Your task to perform on an android device: Clear all items from cart on amazon. Image 0: 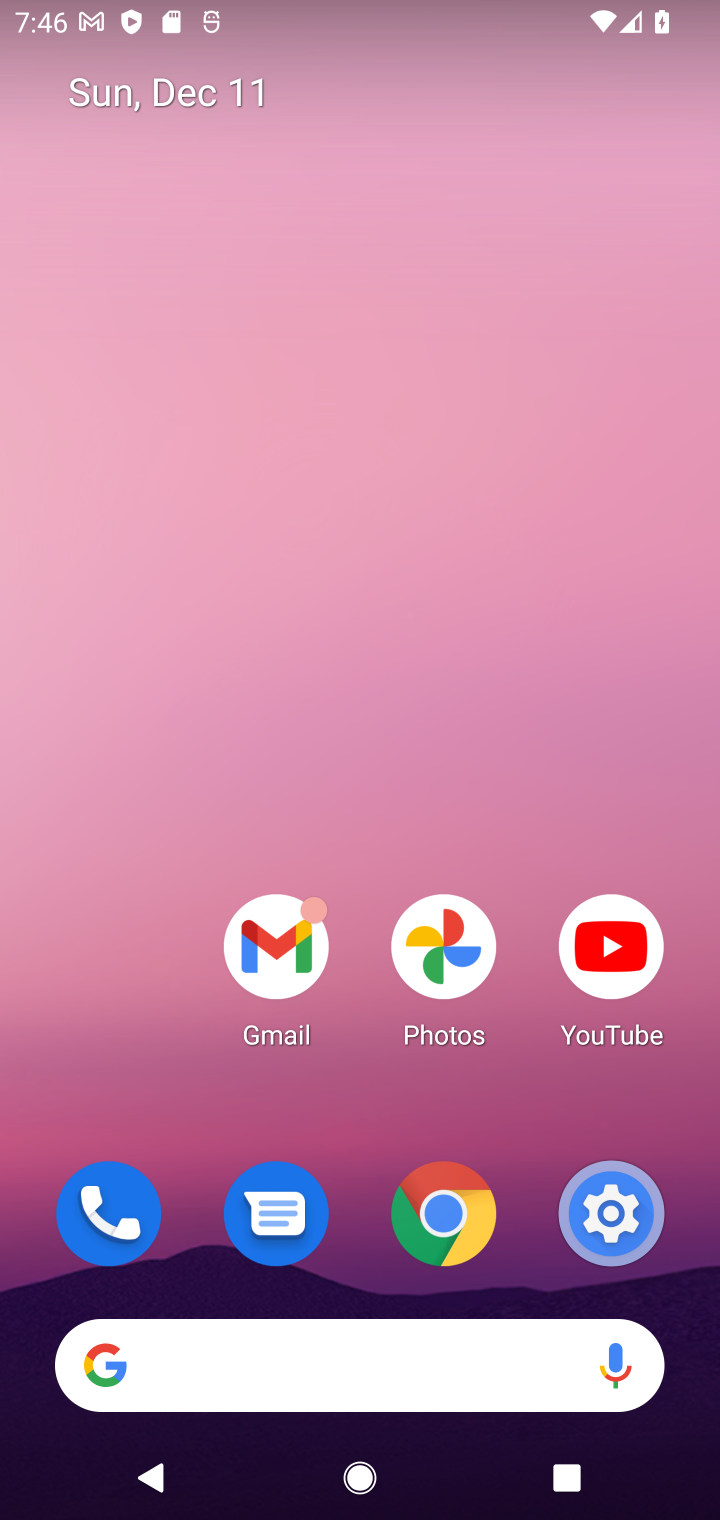
Step 0: click (457, 1365)
Your task to perform on an android device: Clear all items from cart on amazon. Image 1: 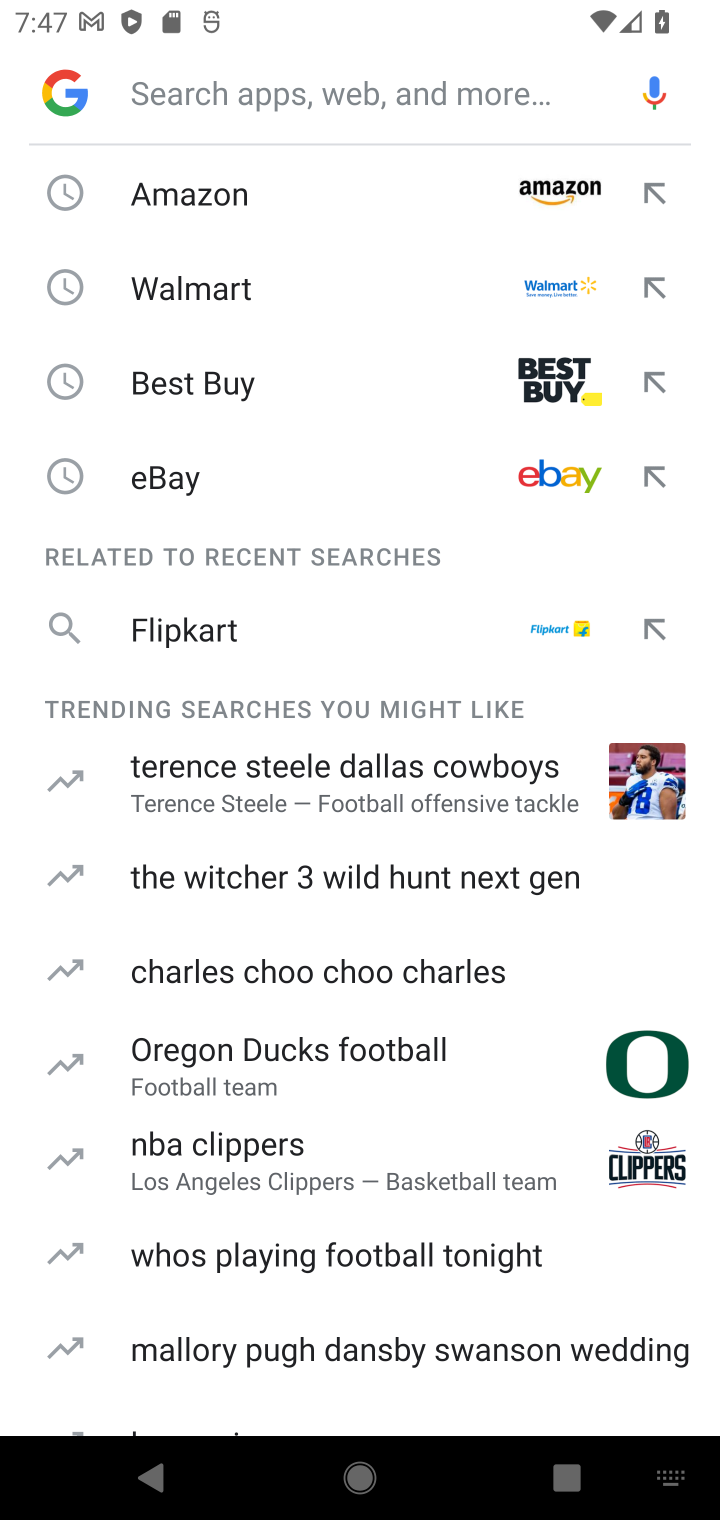
Step 1: click (243, 189)
Your task to perform on an android device: Clear all items from cart on amazon. Image 2: 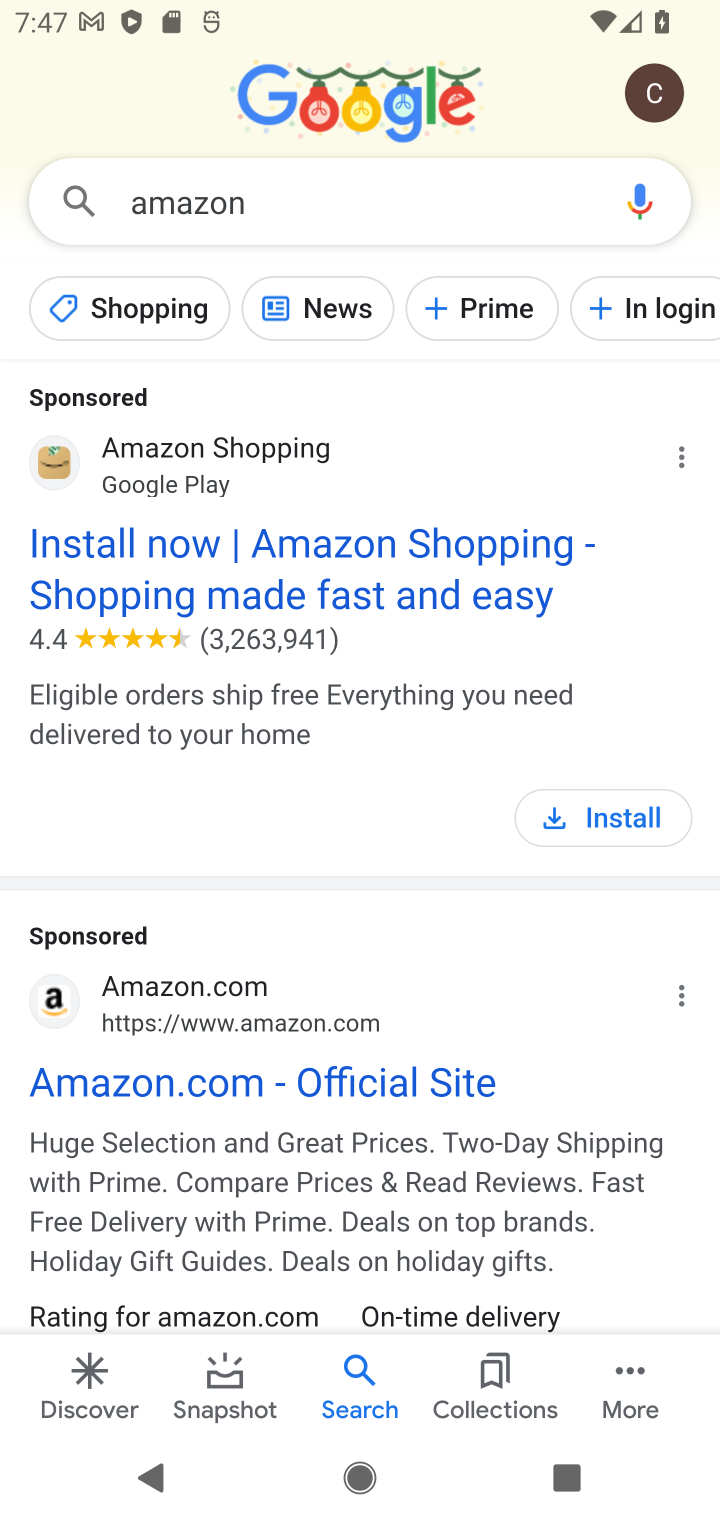
Step 2: click (170, 546)
Your task to perform on an android device: Clear all items from cart on amazon. Image 3: 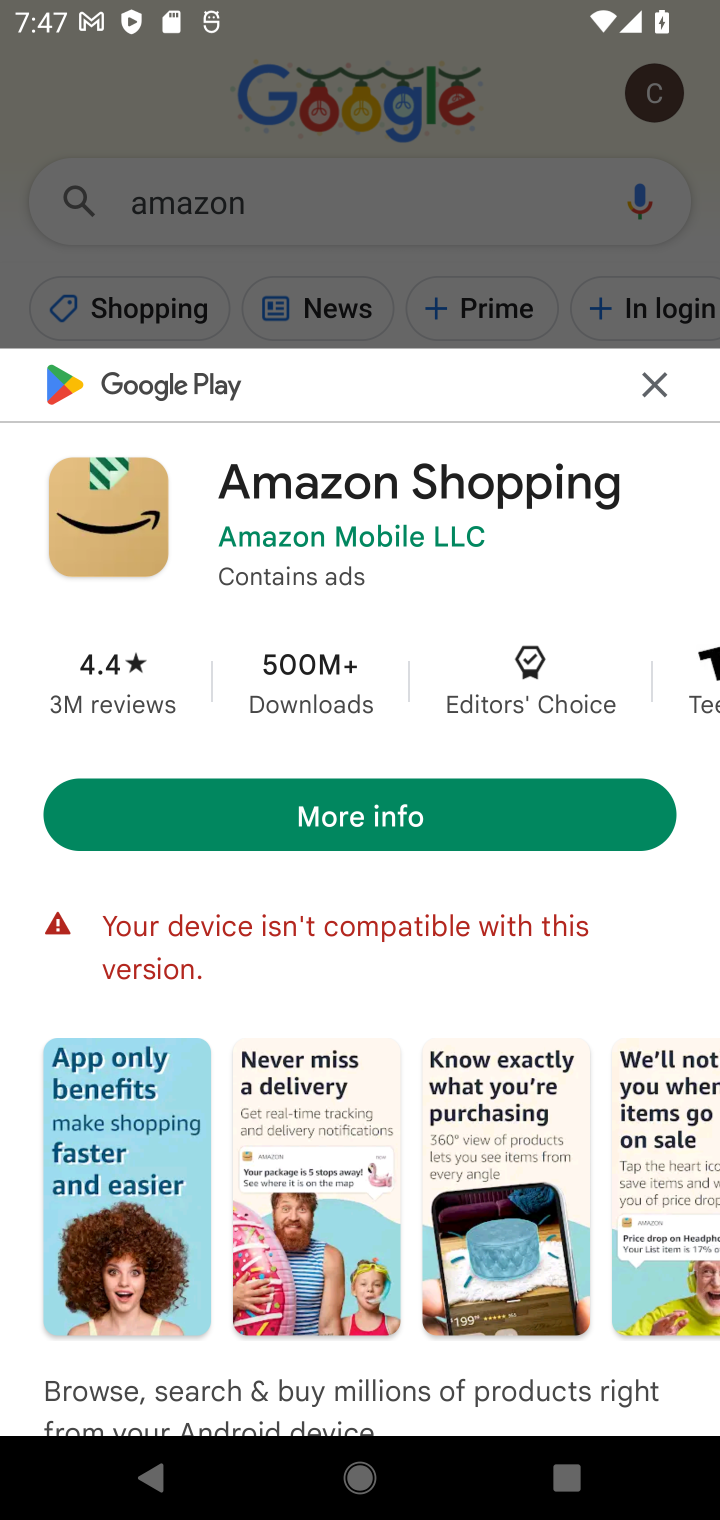
Step 3: click (678, 391)
Your task to perform on an android device: Clear all items from cart on amazon. Image 4: 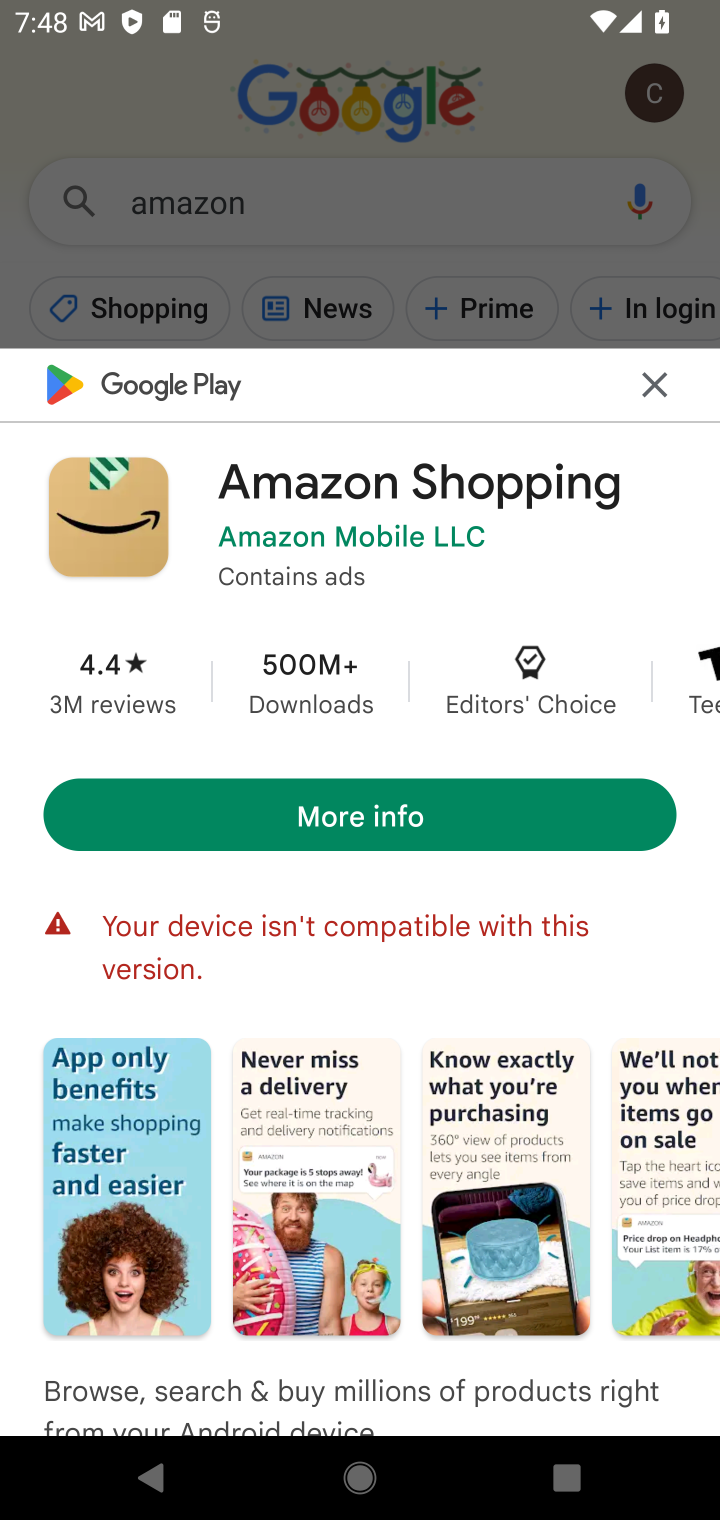
Step 4: press home button
Your task to perform on an android device: Clear all items from cart on amazon. Image 5: 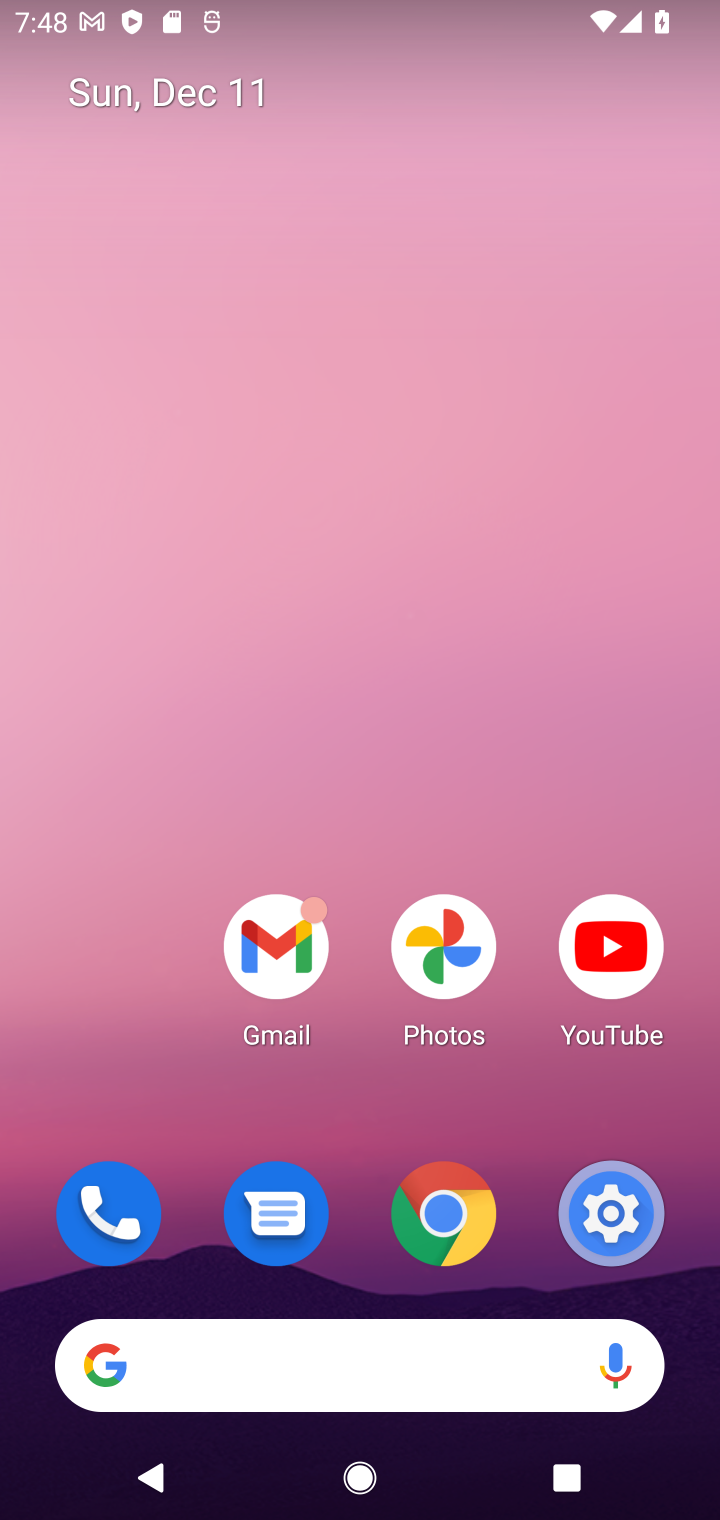
Step 5: click (446, 1365)
Your task to perform on an android device: Clear all items from cart on amazon. Image 6: 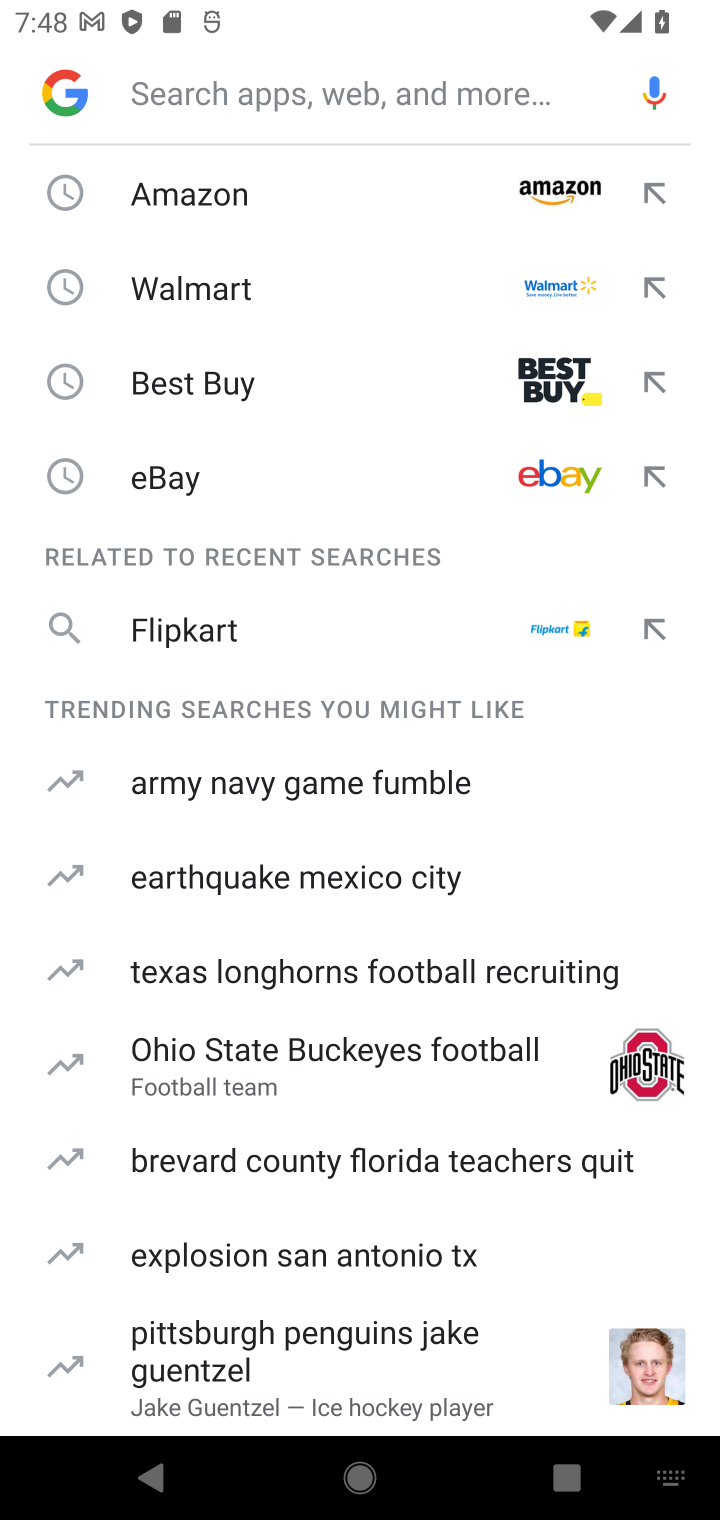
Step 6: click (159, 216)
Your task to perform on an android device: Clear all items from cart on amazon. Image 7: 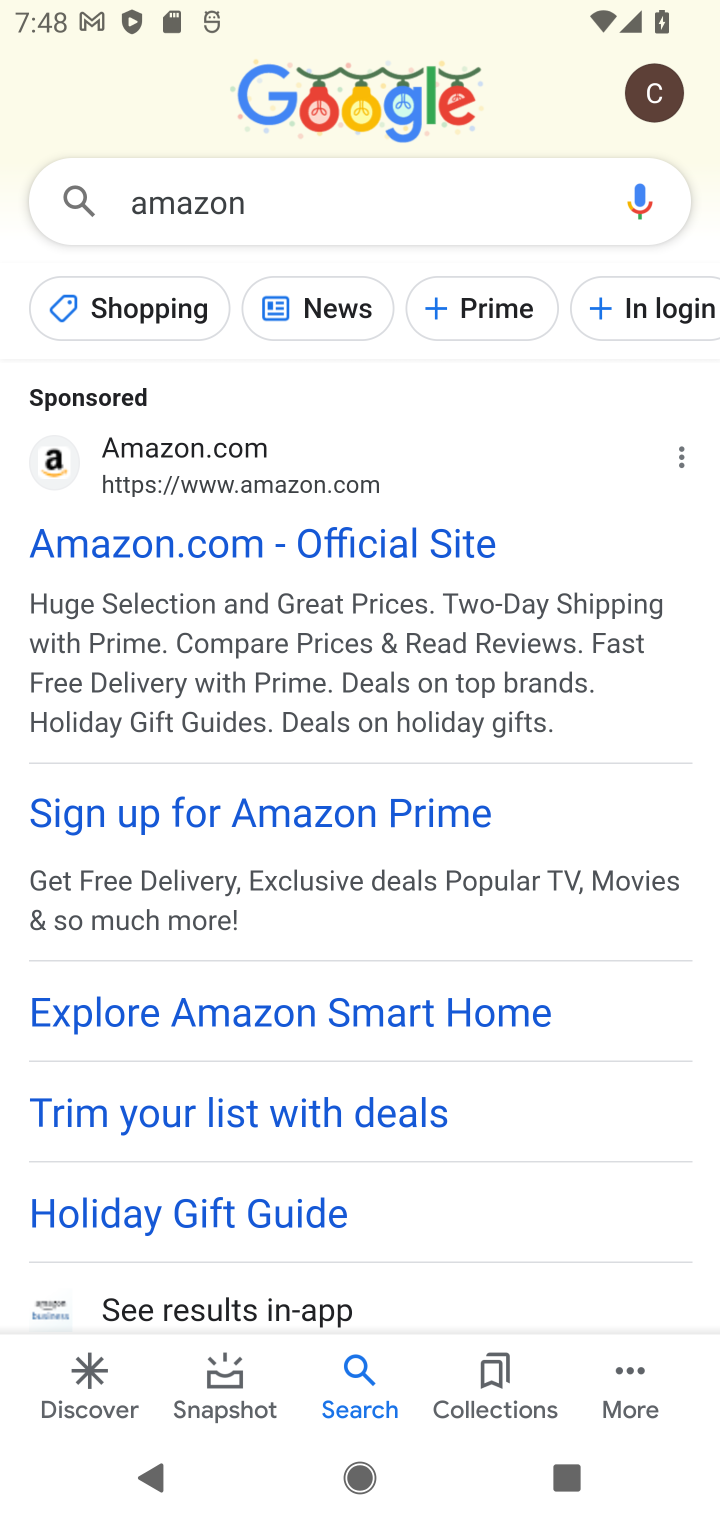
Step 7: click (180, 539)
Your task to perform on an android device: Clear all items from cart on amazon. Image 8: 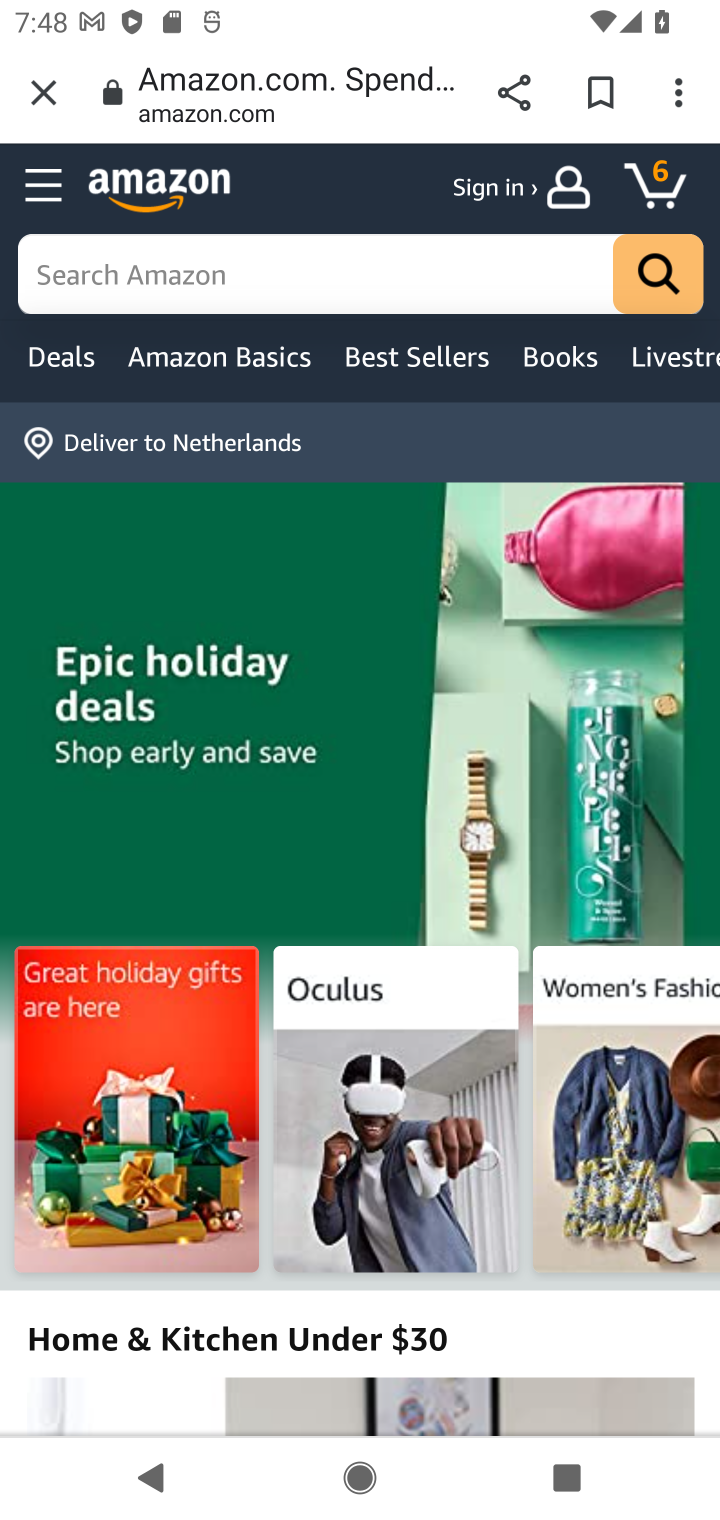
Step 8: click (679, 209)
Your task to perform on an android device: Clear all items from cart on amazon. Image 9: 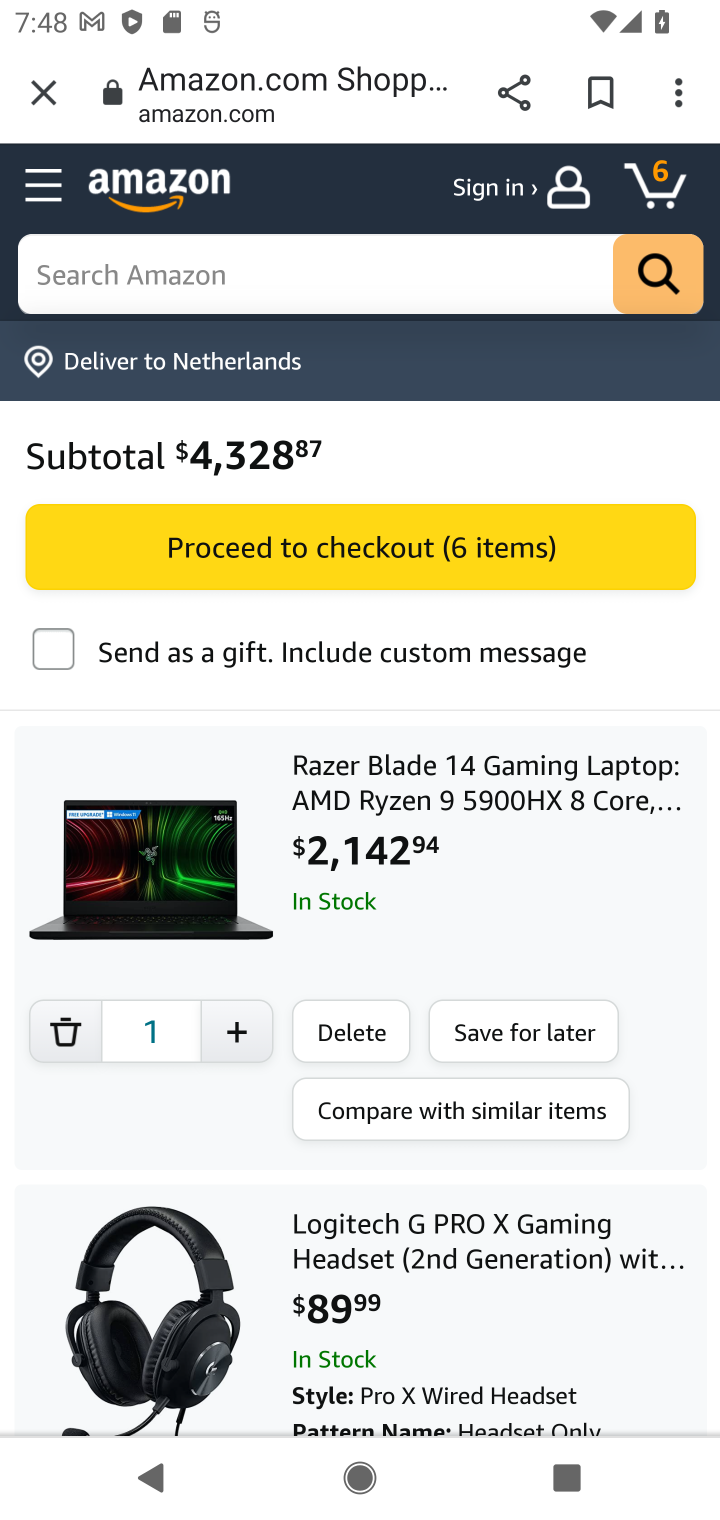
Step 9: click (362, 1050)
Your task to perform on an android device: Clear all items from cart on amazon. Image 10: 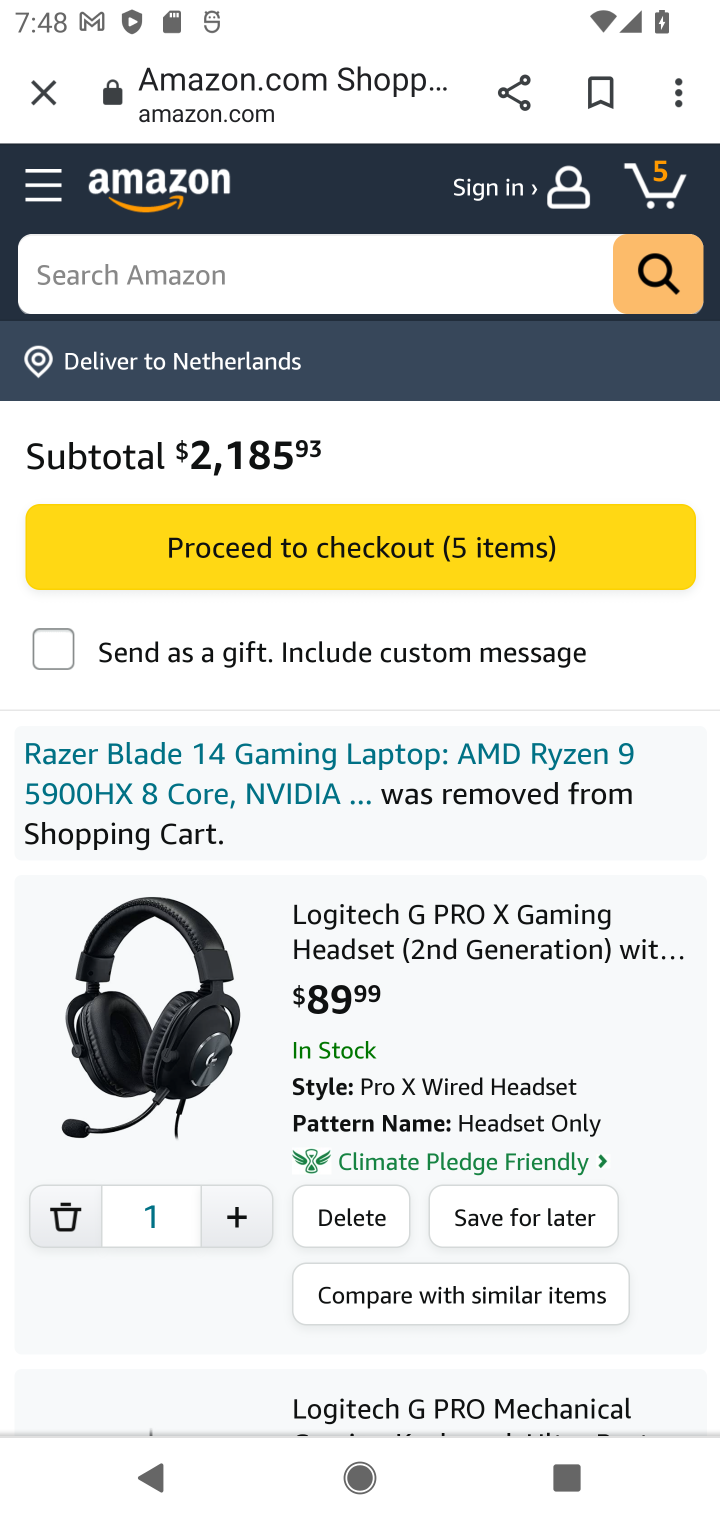
Step 10: click (372, 1229)
Your task to perform on an android device: Clear all items from cart on amazon. Image 11: 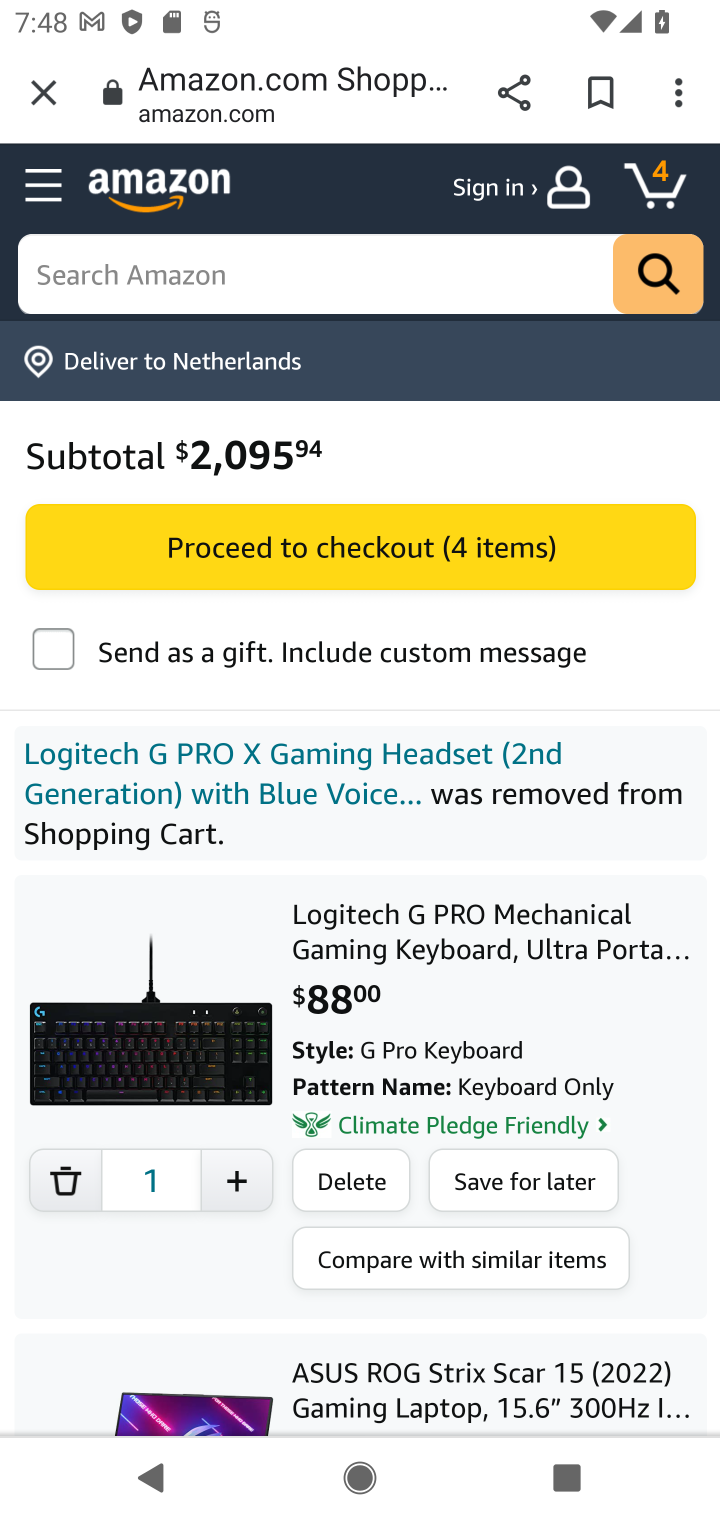
Step 11: click (372, 1197)
Your task to perform on an android device: Clear all items from cart on amazon. Image 12: 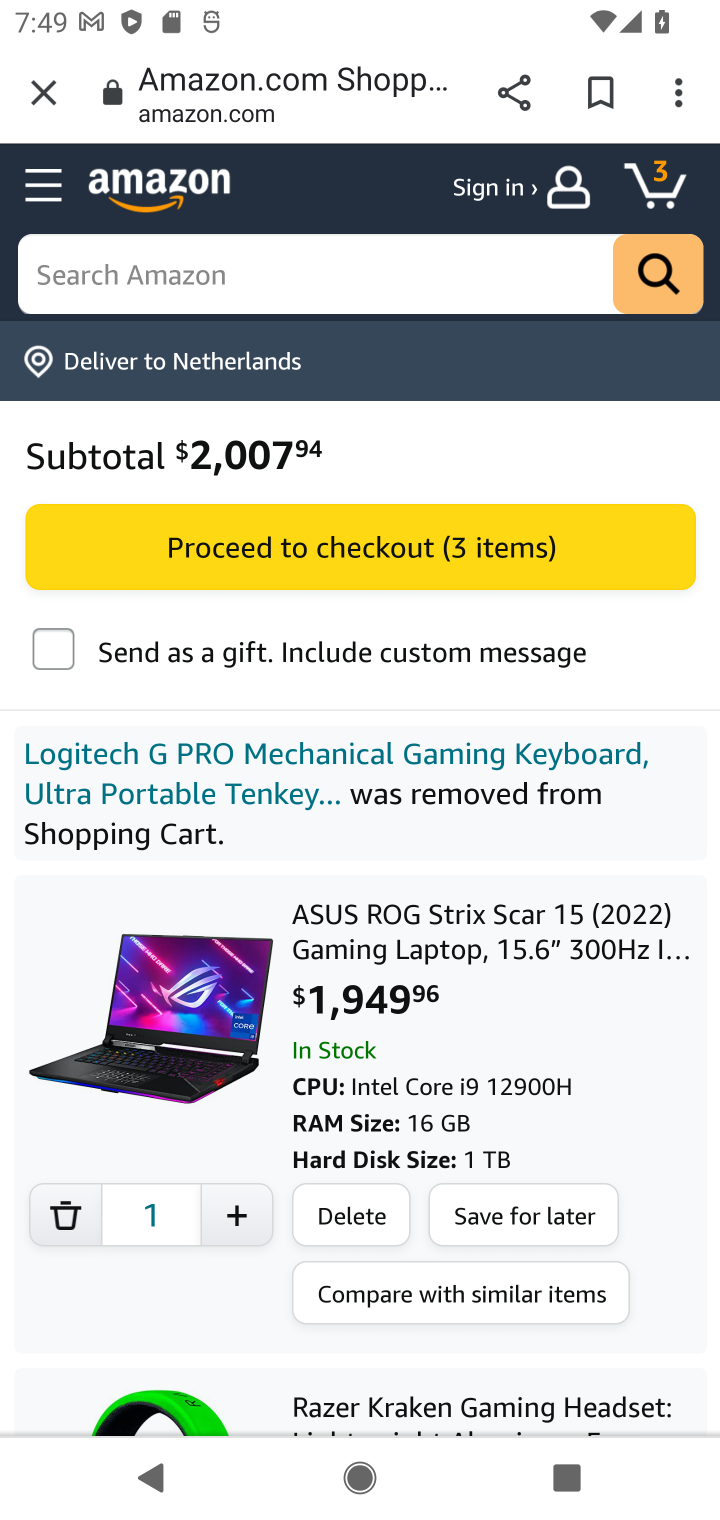
Step 12: click (372, 1197)
Your task to perform on an android device: Clear all items from cart on amazon. Image 13: 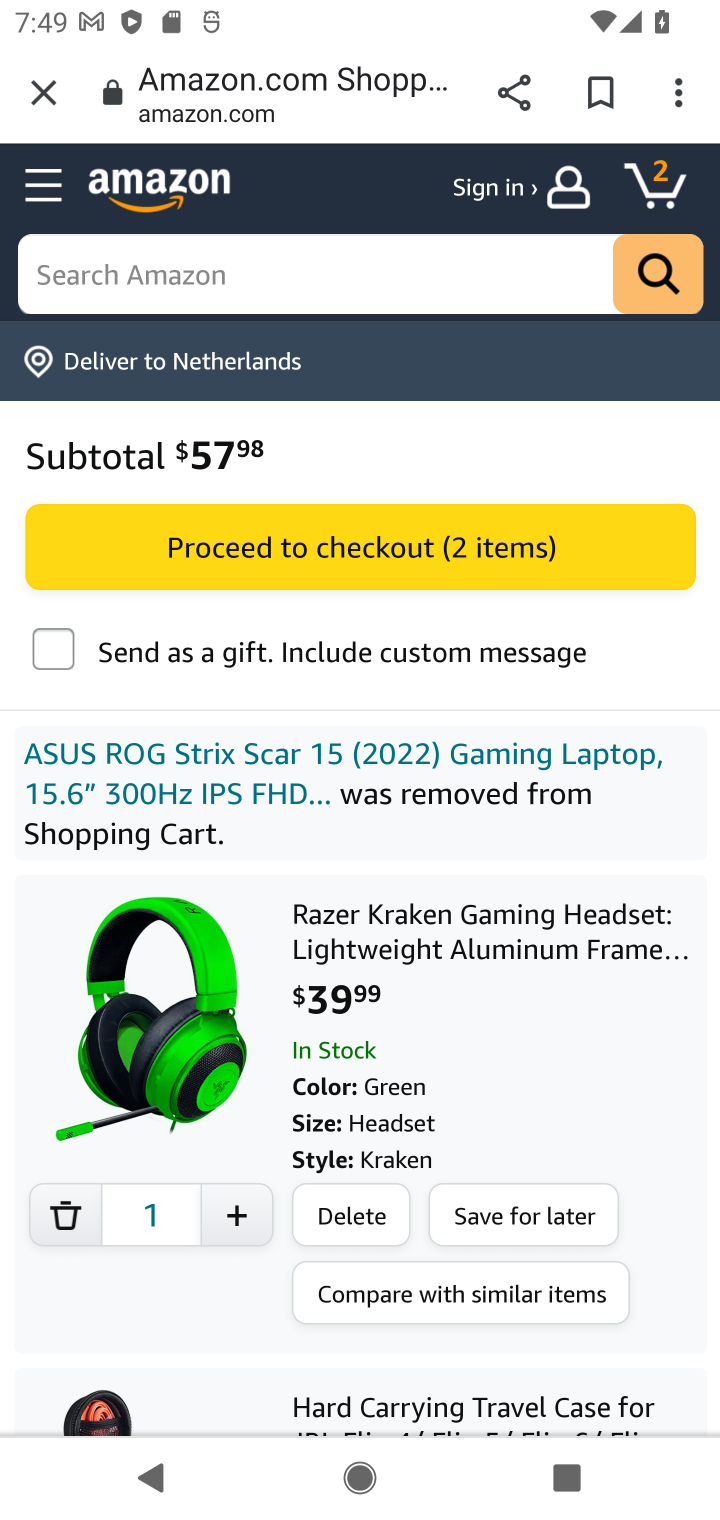
Step 13: click (372, 1197)
Your task to perform on an android device: Clear all items from cart on amazon. Image 14: 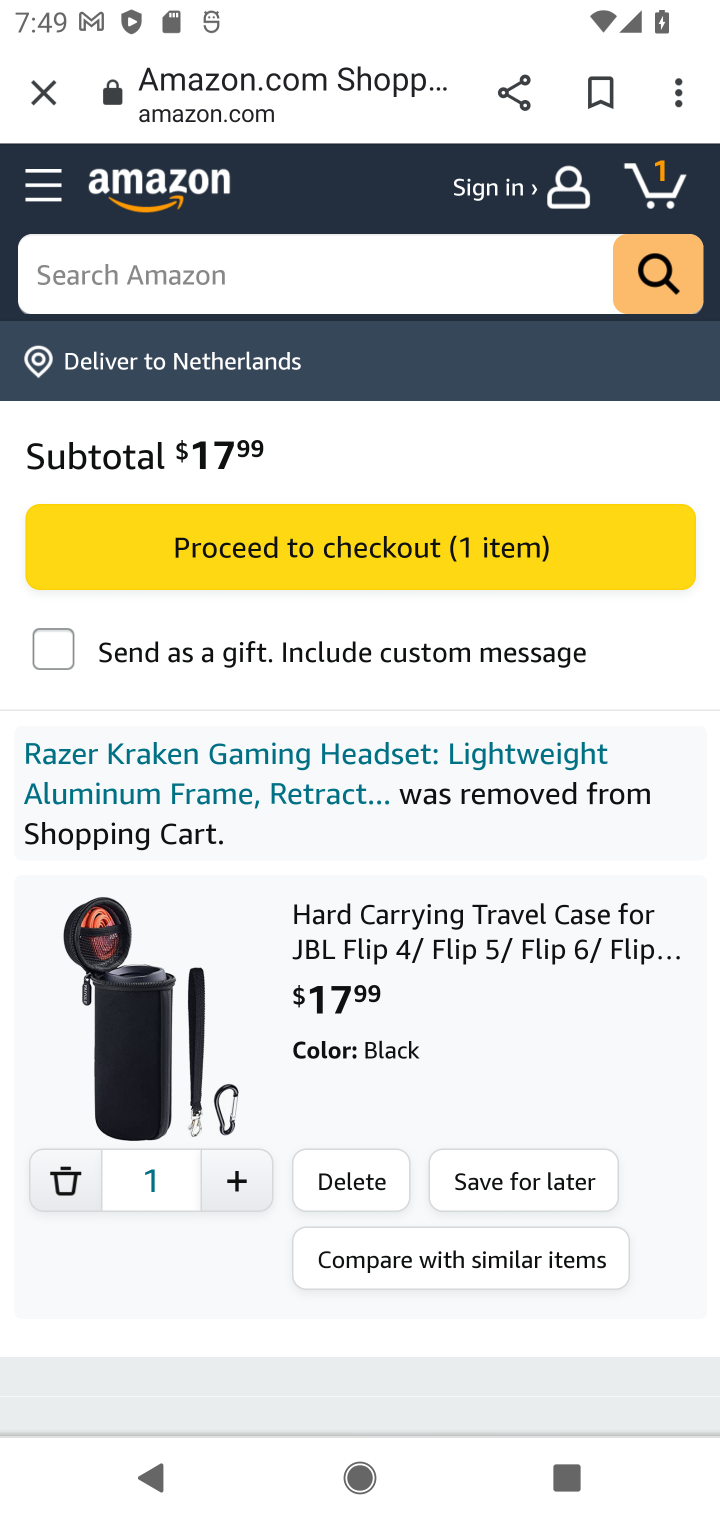
Step 14: click (372, 1197)
Your task to perform on an android device: Clear all items from cart on amazon. Image 15: 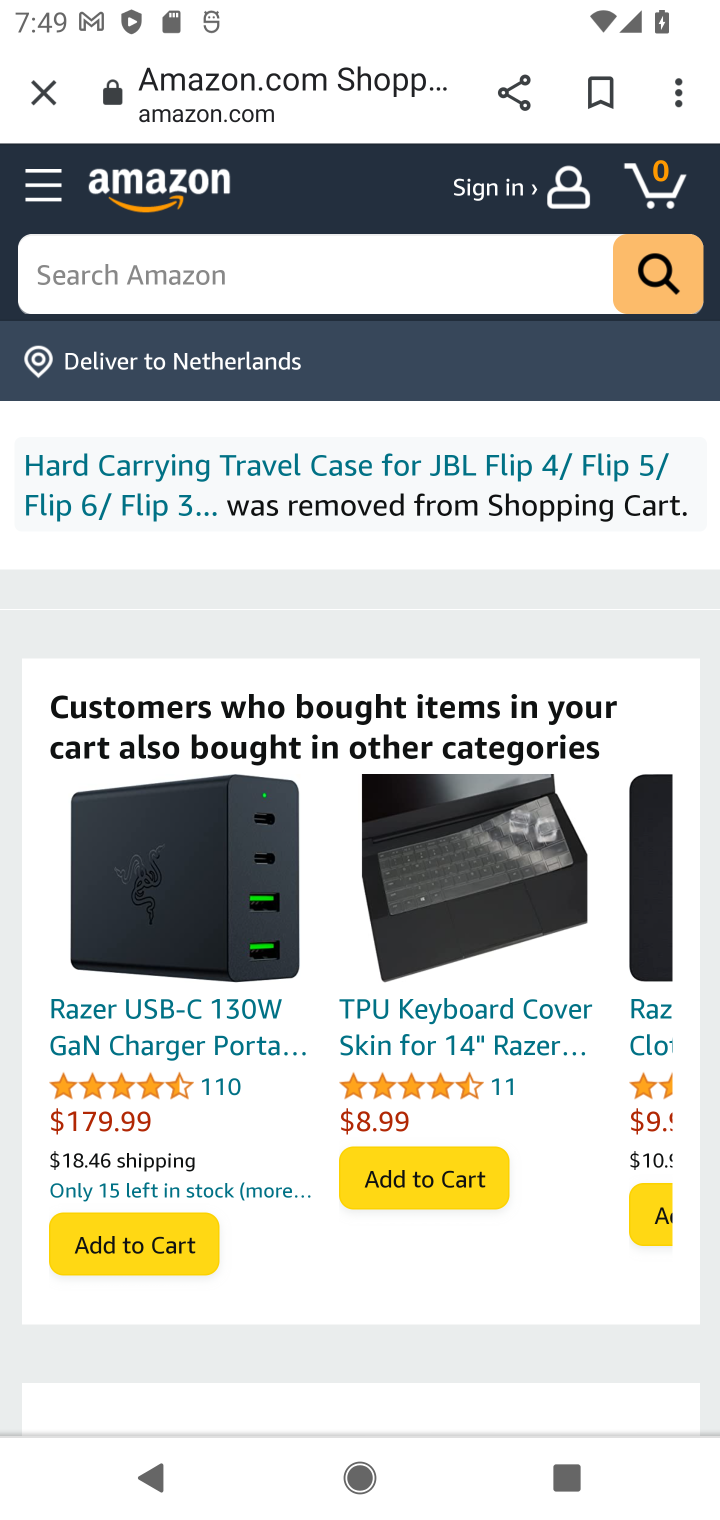
Step 15: task complete